Your task to perform on an android device: Empty the shopping cart on newegg. Add dell xps to the cart on newegg, then select checkout. Image 0: 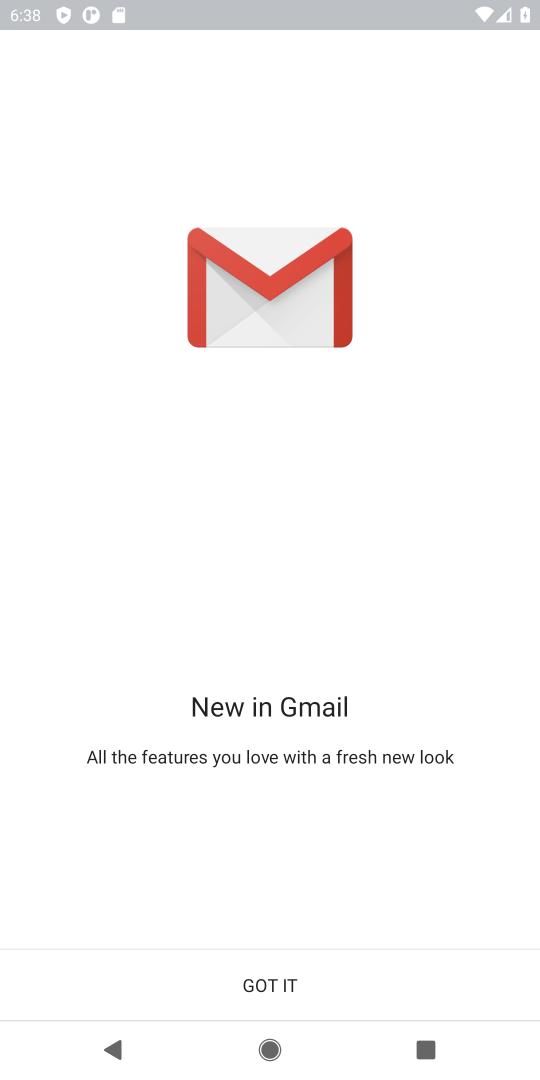
Step 0: press home button
Your task to perform on an android device: Empty the shopping cart on newegg. Add dell xps to the cart on newegg, then select checkout. Image 1: 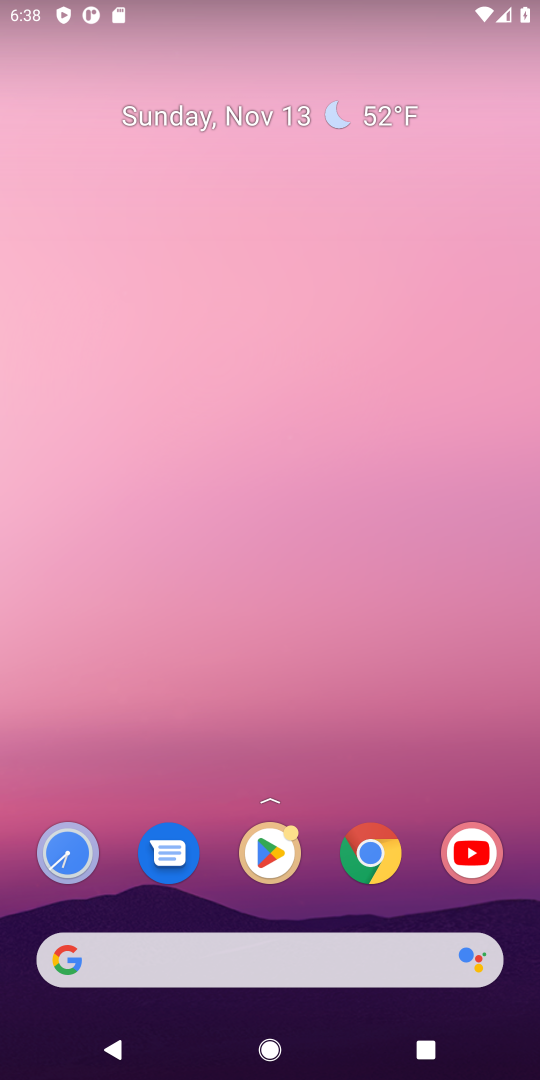
Step 1: click (96, 964)
Your task to perform on an android device: Empty the shopping cart on newegg. Add dell xps to the cart on newegg, then select checkout. Image 2: 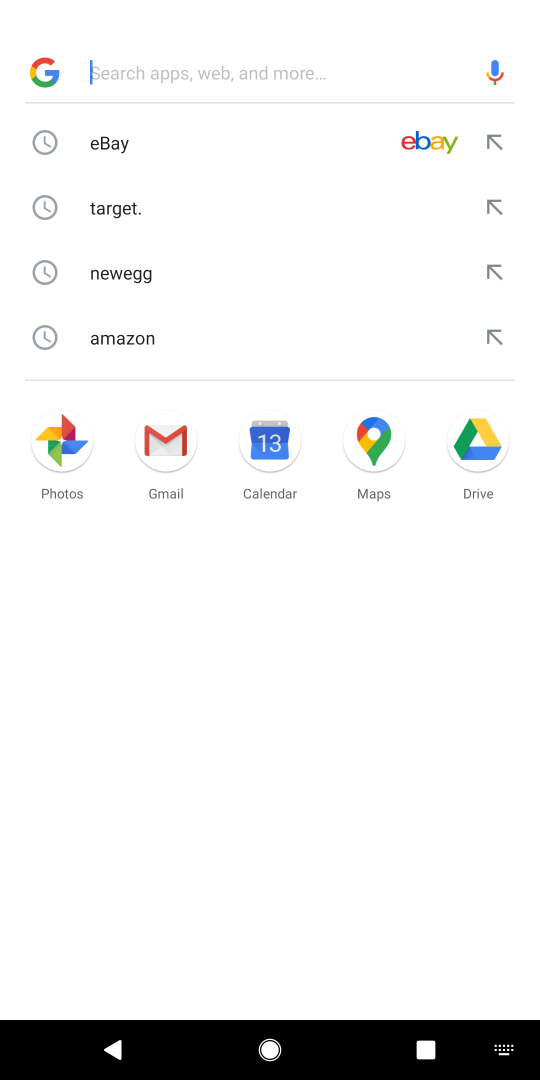
Step 2: type "newegg"
Your task to perform on an android device: Empty the shopping cart on newegg. Add dell xps to the cart on newegg, then select checkout. Image 3: 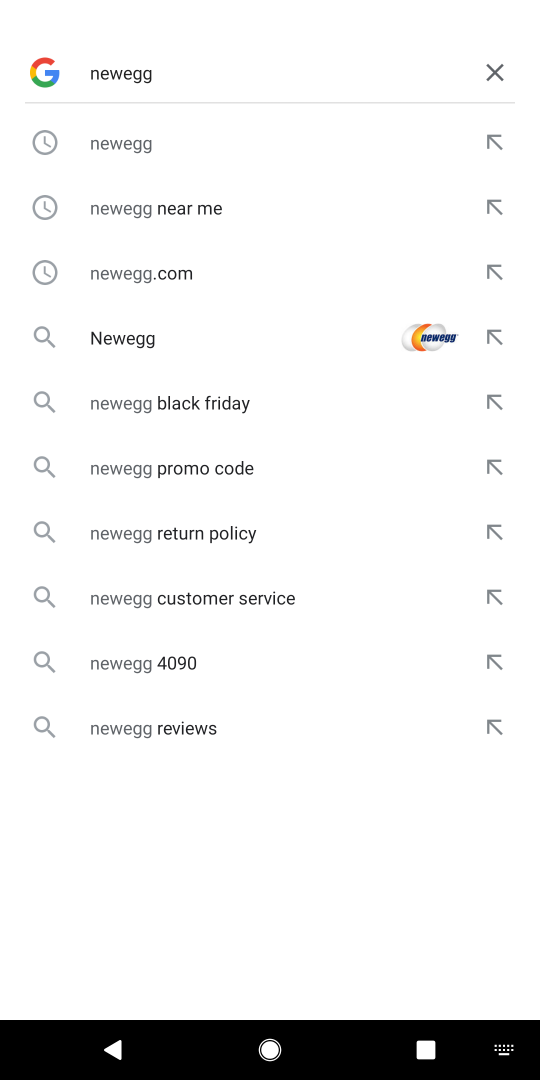
Step 3: press enter
Your task to perform on an android device: Empty the shopping cart on newegg. Add dell xps to the cart on newegg, then select checkout. Image 4: 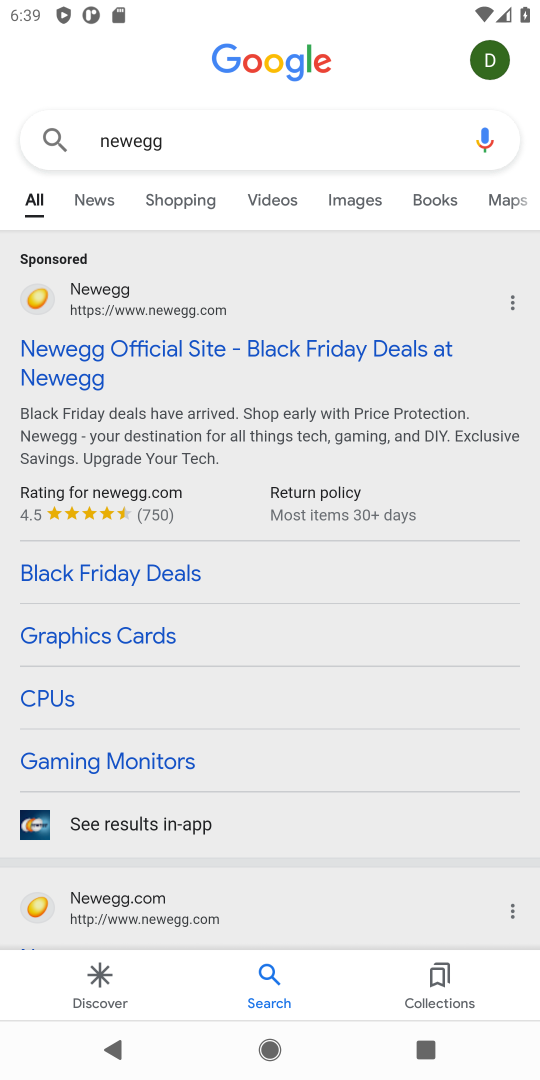
Step 4: click (71, 356)
Your task to perform on an android device: Empty the shopping cart on newegg. Add dell xps to the cart on newegg, then select checkout. Image 5: 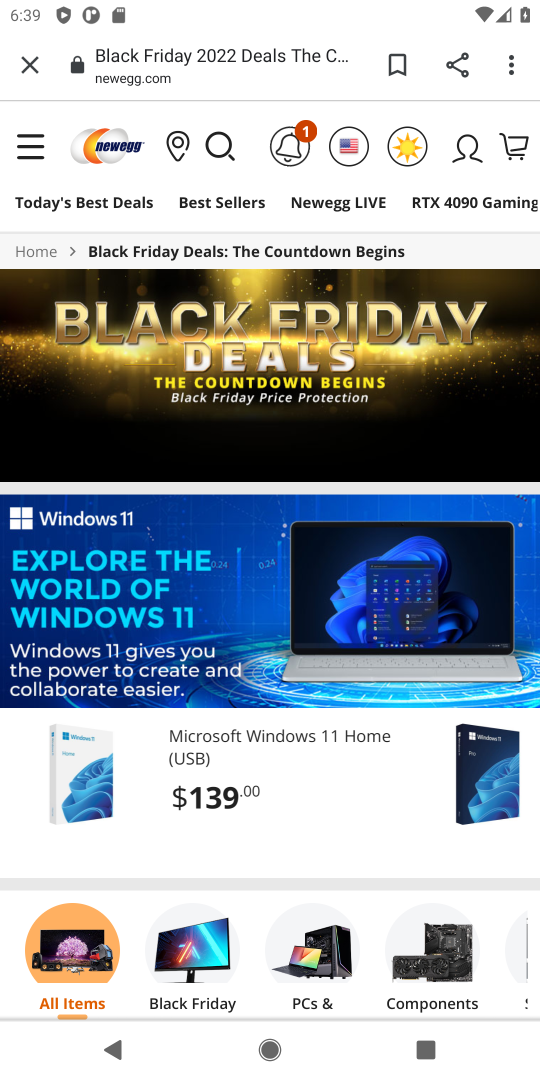
Step 5: click (526, 135)
Your task to perform on an android device: Empty the shopping cart on newegg. Add dell xps to the cart on newegg, then select checkout. Image 6: 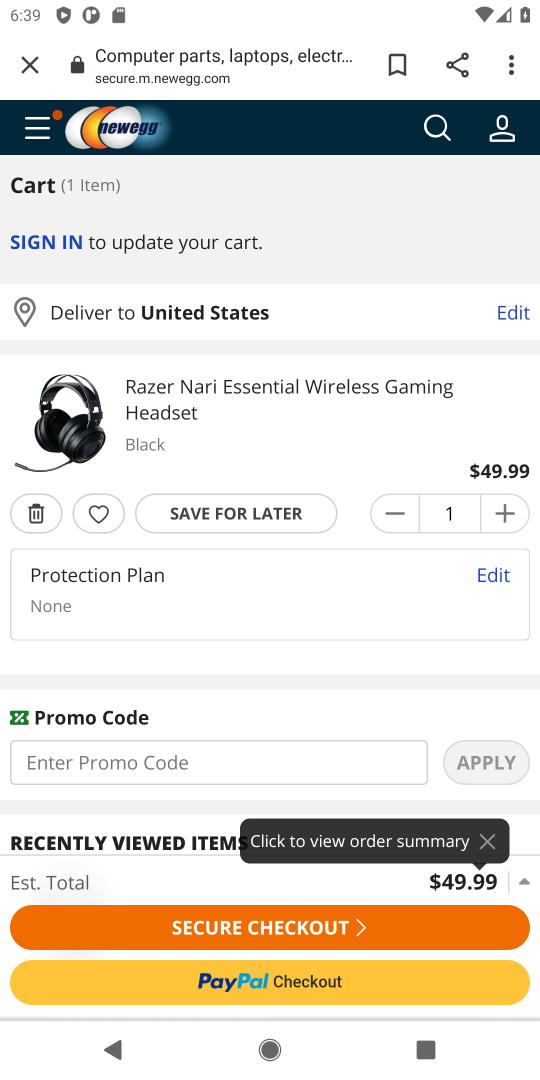
Step 6: click (36, 515)
Your task to perform on an android device: Empty the shopping cart on newegg. Add dell xps to the cart on newegg, then select checkout. Image 7: 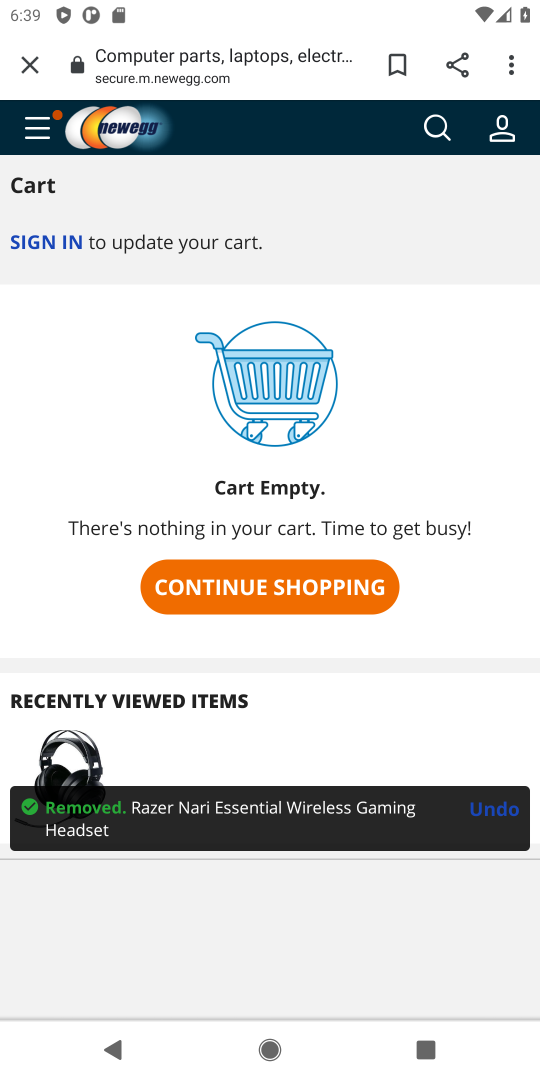
Step 7: click (436, 125)
Your task to perform on an android device: Empty the shopping cart on newegg. Add dell xps to the cart on newegg, then select checkout. Image 8: 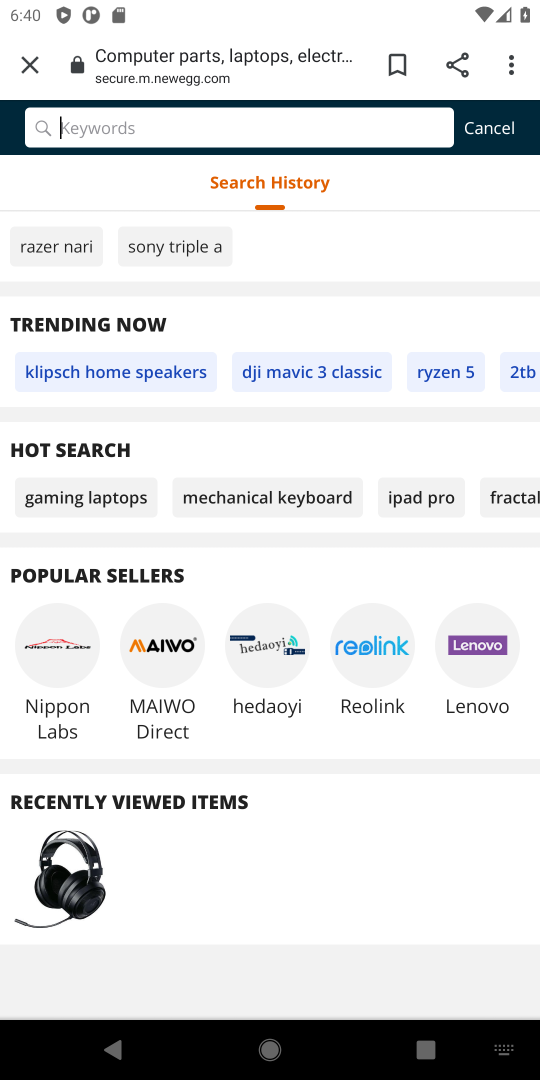
Step 8: type "dell xps "
Your task to perform on an android device: Empty the shopping cart on newegg. Add dell xps to the cart on newegg, then select checkout. Image 9: 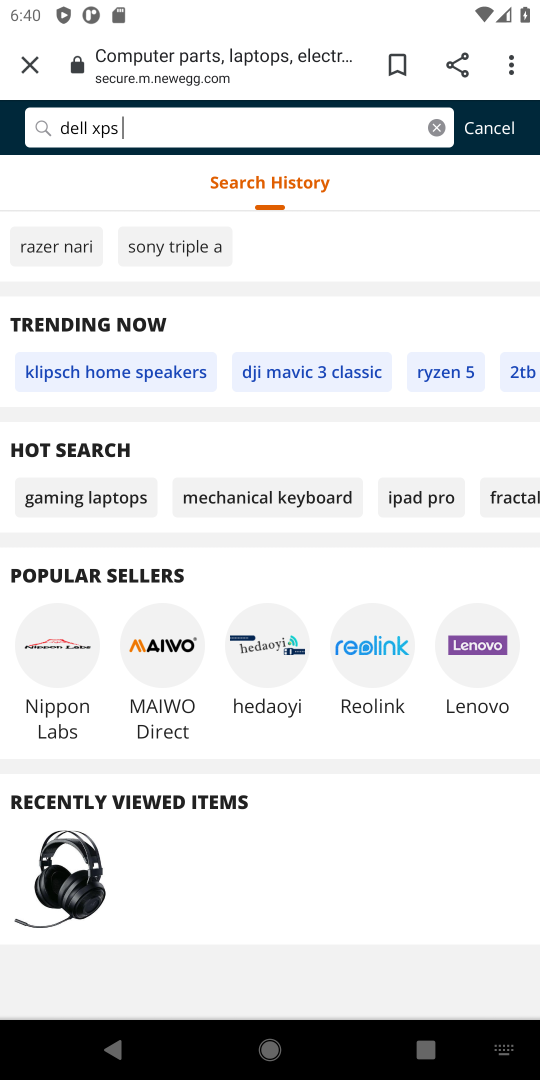
Step 9: press enter
Your task to perform on an android device: Empty the shopping cart on newegg. Add dell xps to the cart on newegg, then select checkout. Image 10: 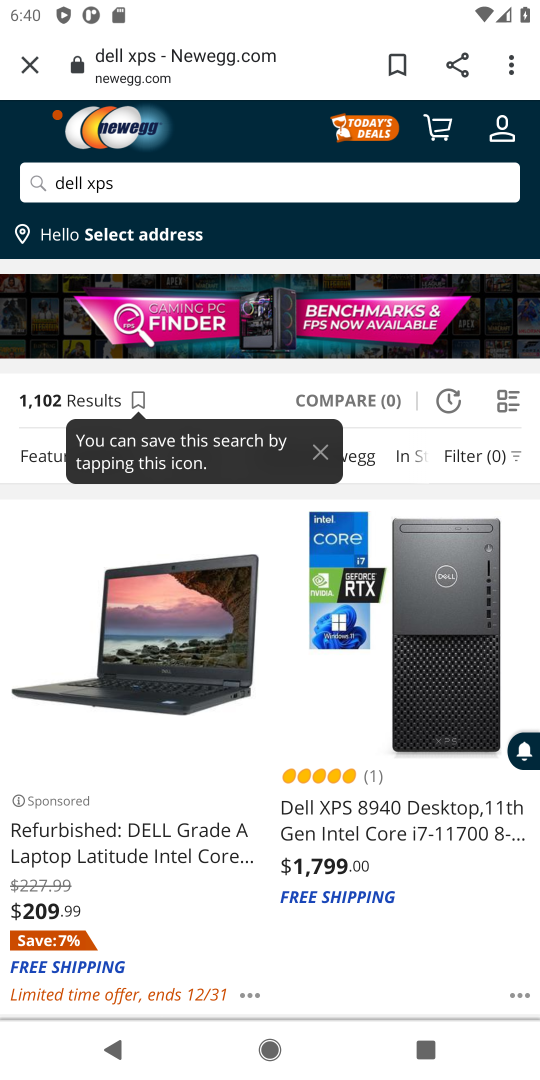
Step 10: drag from (278, 939) to (279, 616)
Your task to perform on an android device: Empty the shopping cart on newegg. Add dell xps to the cart on newegg, then select checkout. Image 11: 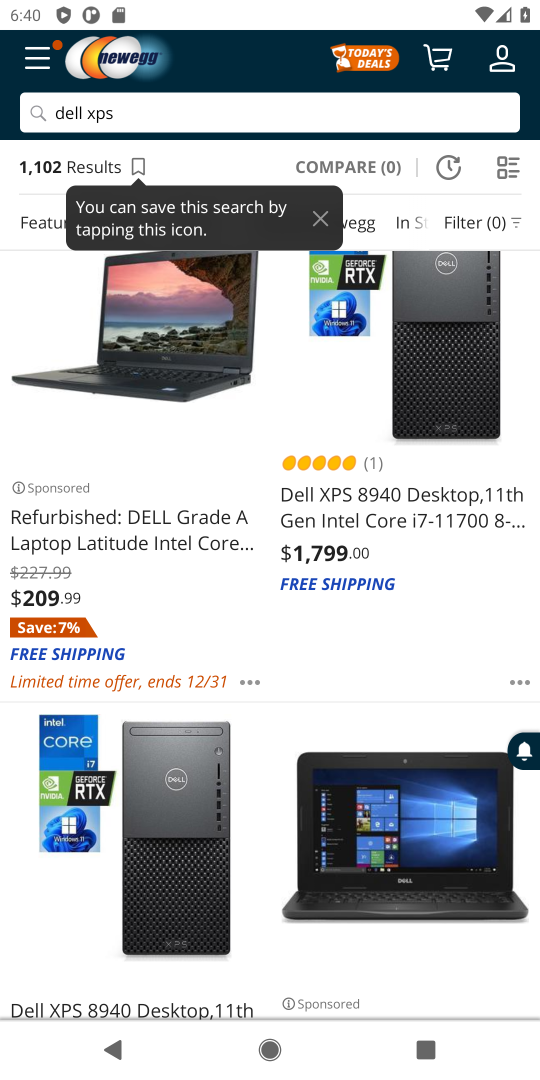
Step 11: click (365, 501)
Your task to perform on an android device: Empty the shopping cart on newegg. Add dell xps to the cart on newegg, then select checkout. Image 12: 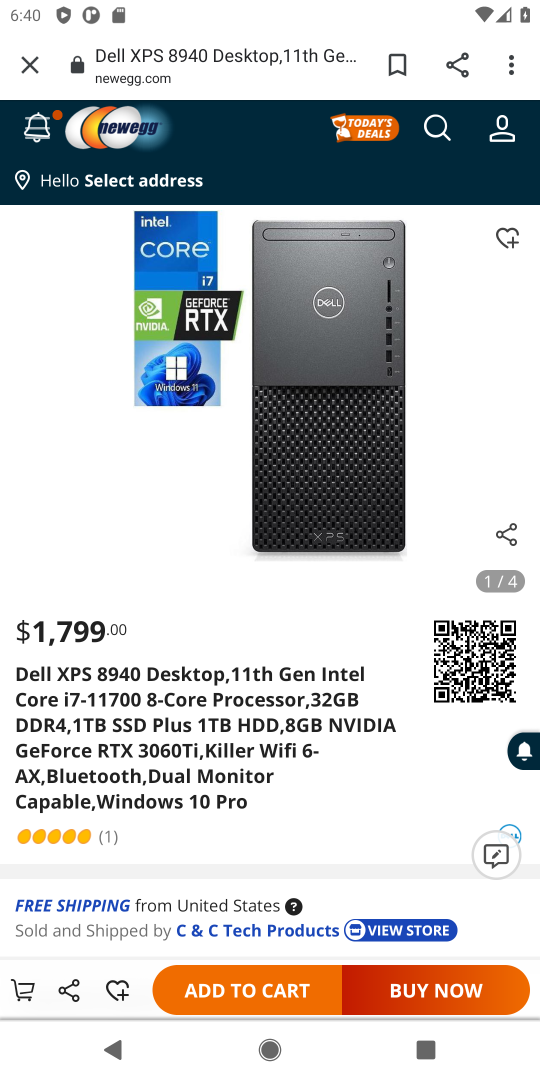
Step 12: click (216, 990)
Your task to perform on an android device: Empty the shopping cart on newegg. Add dell xps to the cart on newegg, then select checkout. Image 13: 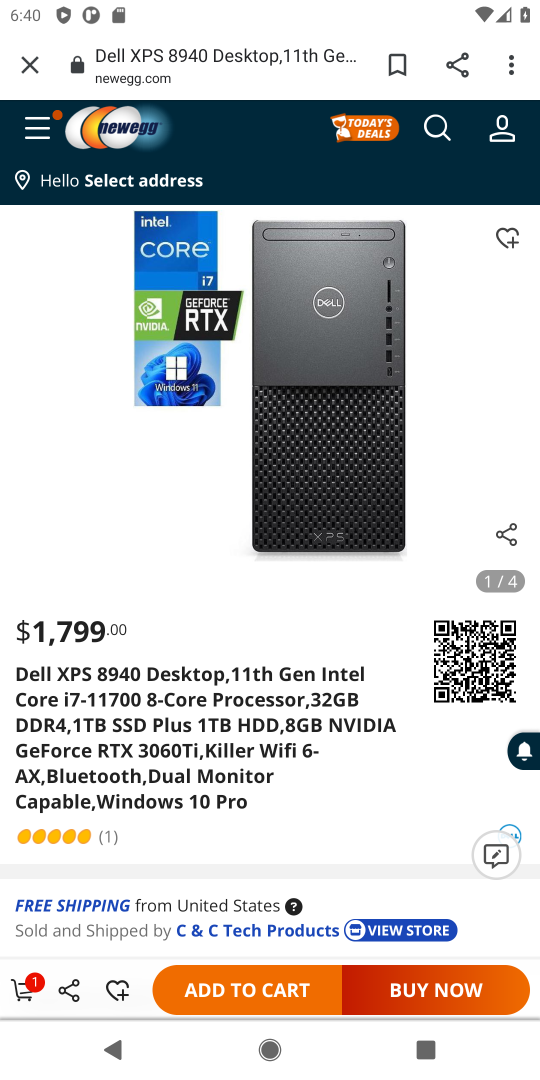
Step 13: click (29, 985)
Your task to perform on an android device: Empty the shopping cart on newegg. Add dell xps to the cart on newegg, then select checkout. Image 14: 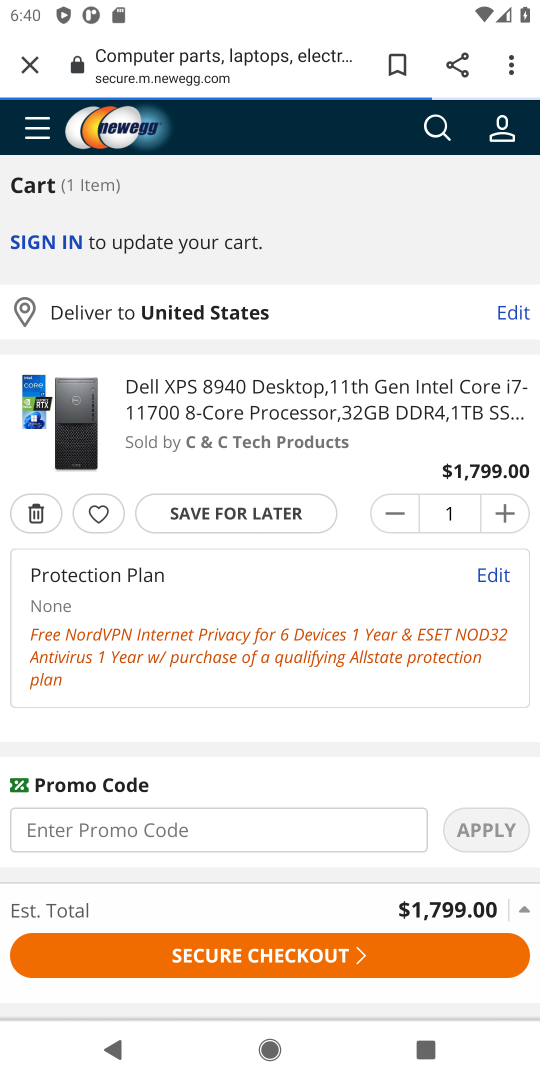
Step 14: click (273, 969)
Your task to perform on an android device: Empty the shopping cart on newegg. Add dell xps to the cart on newegg, then select checkout. Image 15: 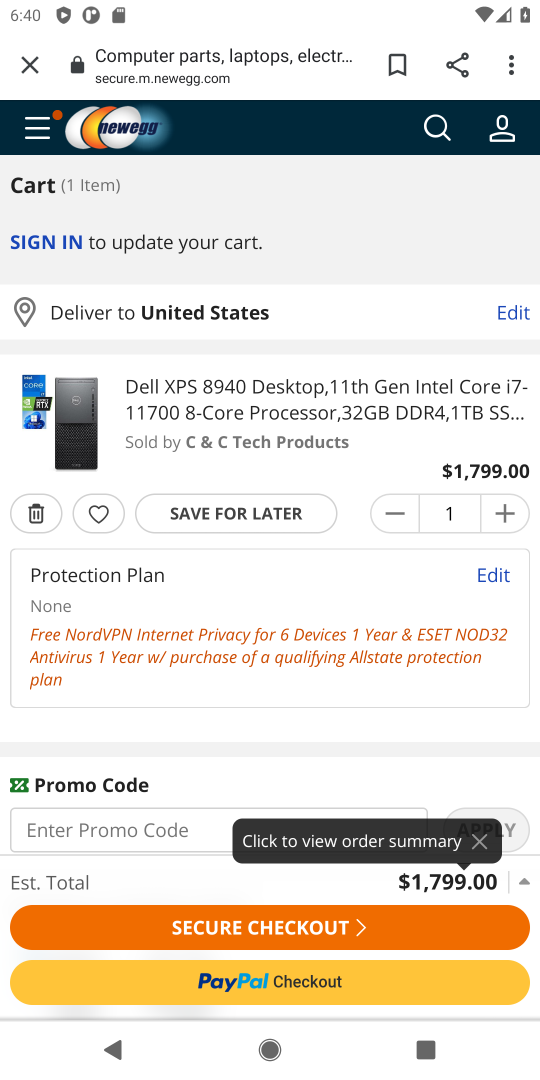
Step 15: click (338, 931)
Your task to perform on an android device: Empty the shopping cart on newegg. Add dell xps to the cart on newegg, then select checkout. Image 16: 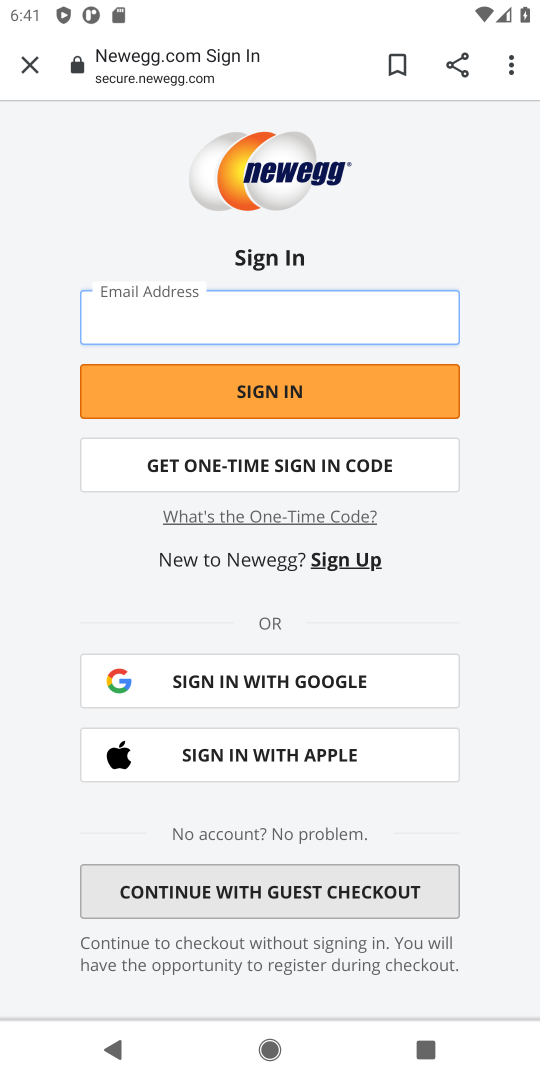
Step 16: task complete